Your task to perform on an android device: set the stopwatch Image 0: 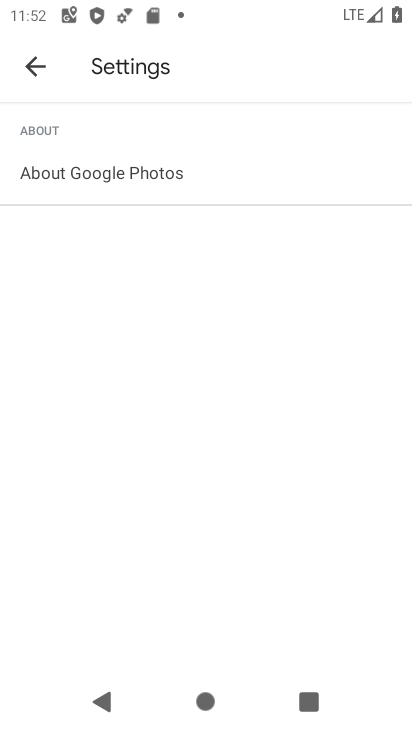
Step 0: press home button
Your task to perform on an android device: set the stopwatch Image 1: 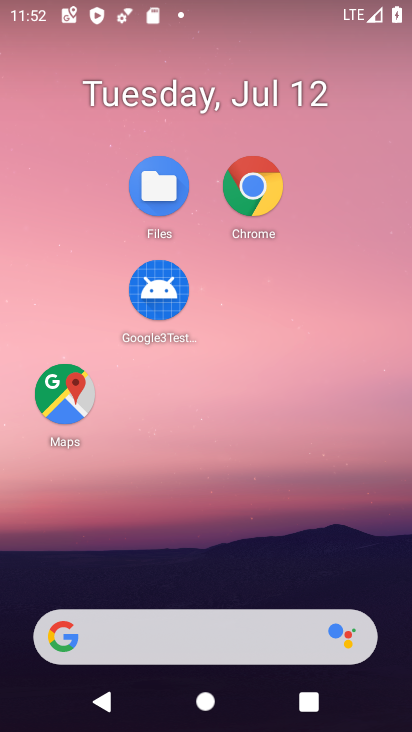
Step 1: drag from (197, 585) to (134, 13)
Your task to perform on an android device: set the stopwatch Image 2: 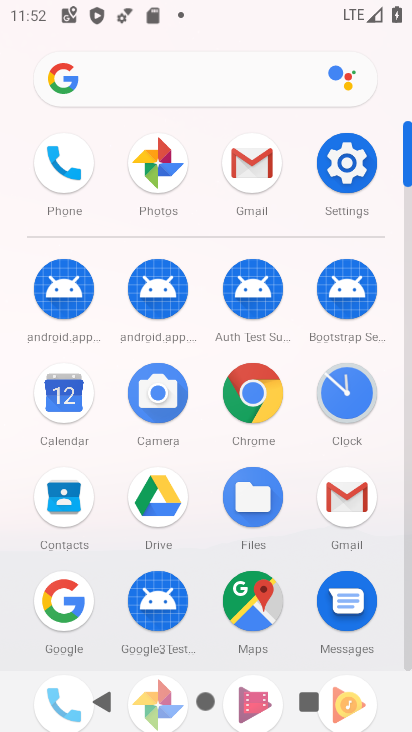
Step 2: click (342, 379)
Your task to perform on an android device: set the stopwatch Image 3: 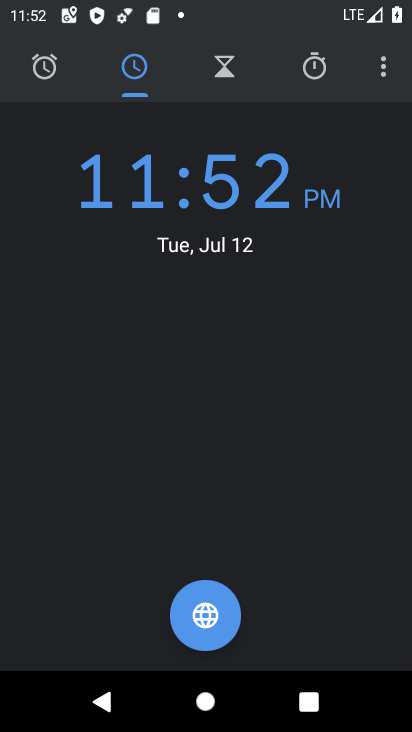
Step 3: click (313, 79)
Your task to perform on an android device: set the stopwatch Image 4: 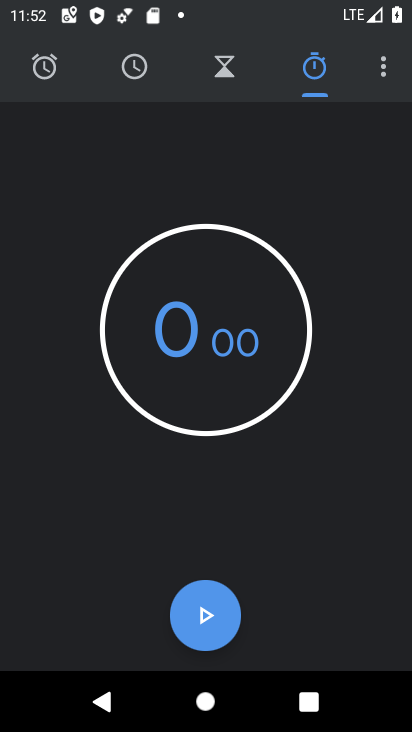
Step 4: task complete